Your task to perform on an android device: turn on the 12-hour format for clock Image 0: 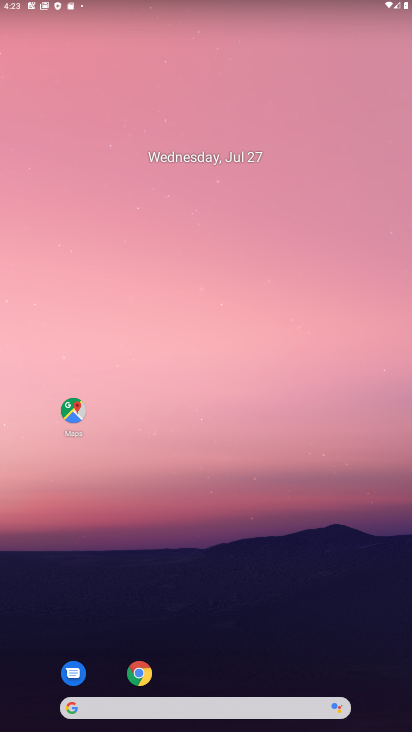
Step 0: drag from (236, 613) to (267, 8)
Your task to perform on an android device: turn on the 12-hour format for clock Image 1: 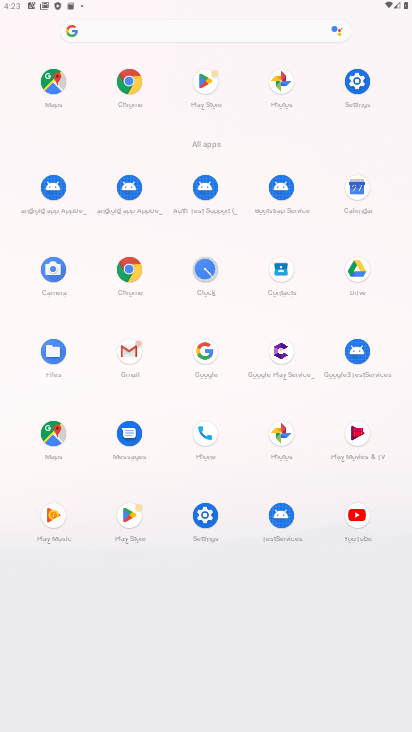
Step 1: click (201, 284)
Your task to perform on an android device: turn on the 12-hour format for clock Image 2: 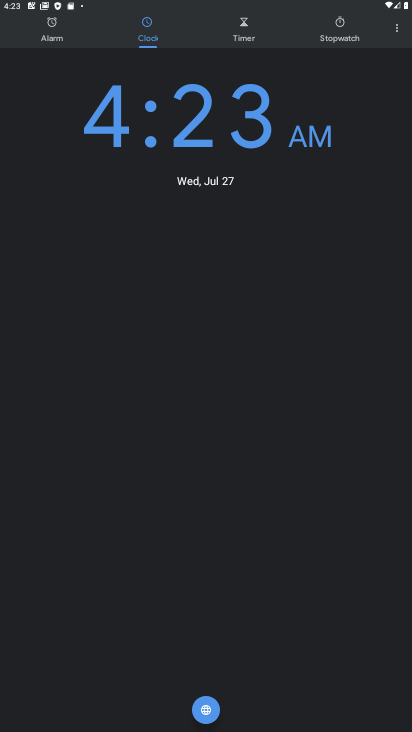
Step 2: click (396, 36)
Your task to perform on an android device: turn on the 12-hour format for clock Image 3: 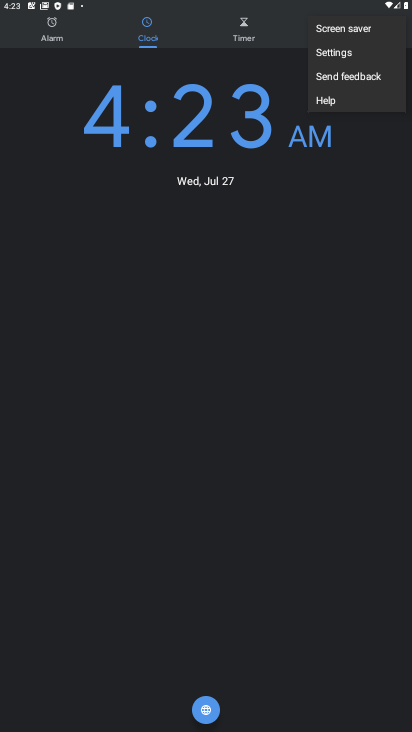
Step 3: click (338, 52)
Your task to perform on an android device: turn on the 12-hour format for clock Image 4: 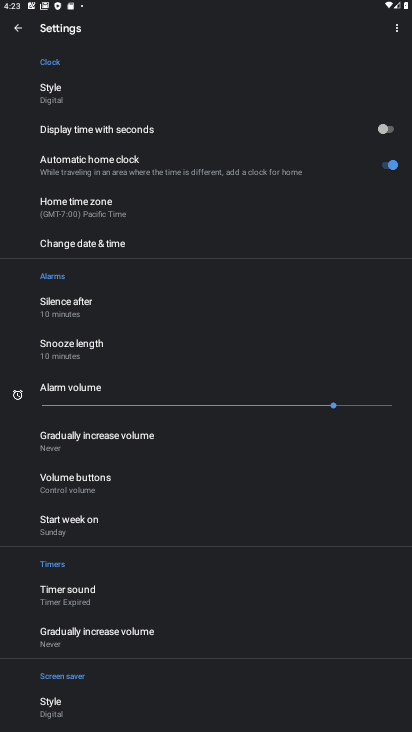
Step 4: click (116, 245)
Your task to perform on an android device: turn on the 12-hour format for clock Image 5: 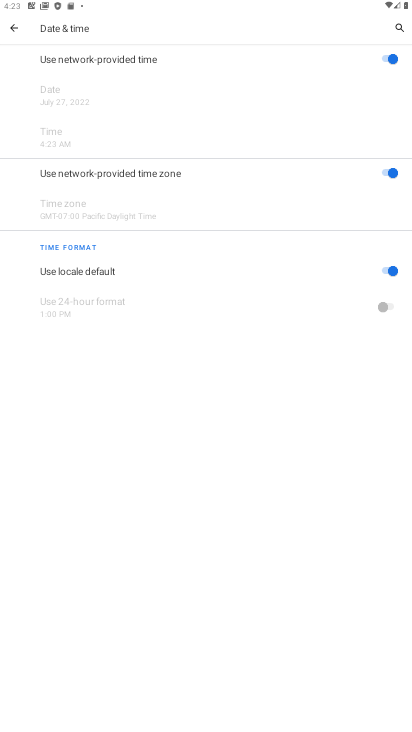
Step 5: task complete